Your task to perform on an android device: Open the phone app and click the voicemail tab. Image 0: 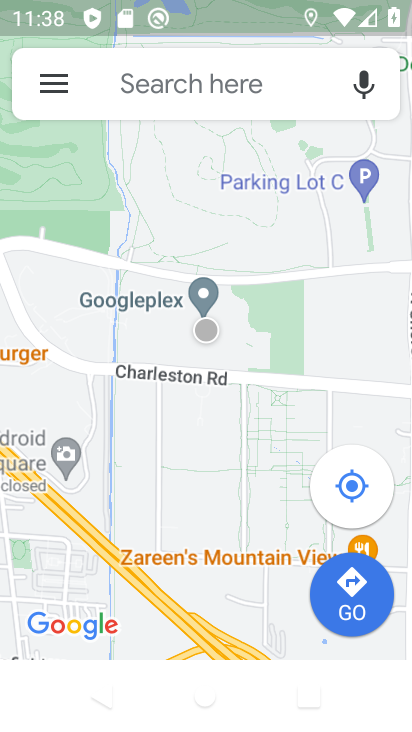
Step 0: press back button
Your task to perform on an android device: Open the phone app and click the voicemail tab. Image 1: 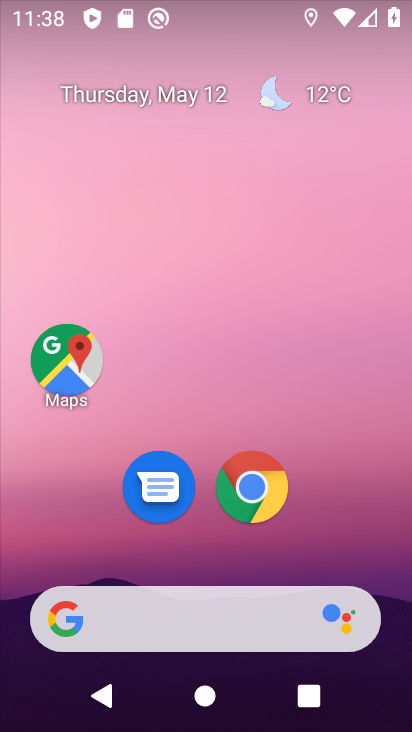
Step 1: drag from (193, 547) to (273, 2)
Your task to perform on an android device: Open the phone app and click the voicemail tab. Image 2: 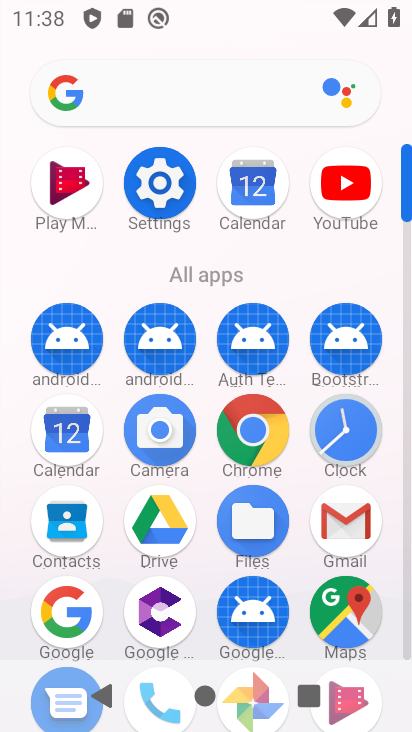
Step 2: drag from (186, 566) to (267, 71)
Your task to perform on an android device: Open the phone app and click the voicemail tab. Image 3: 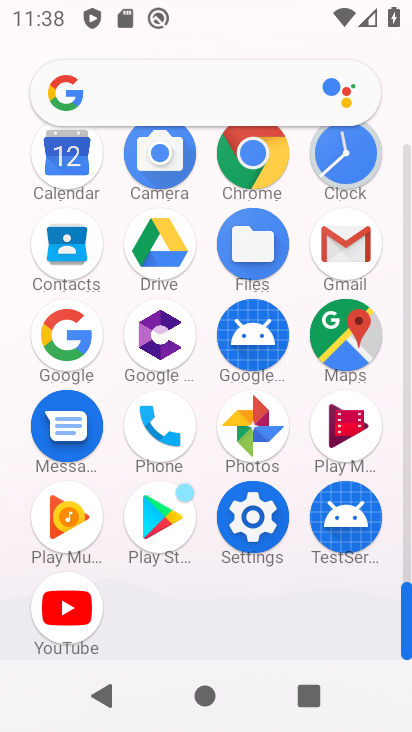
Step 3: click (158, 436)
Your task to perform on an android device: Open the phone app and click the voicemail tab. Image 4: 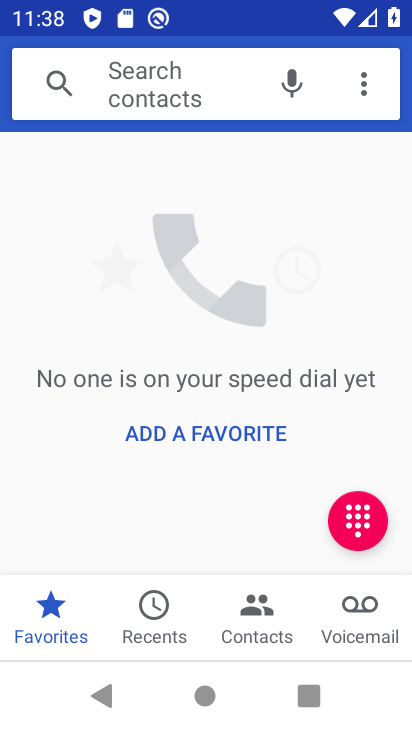
Step 4: click (351, 624)
Your task to perform on an android device: Open the phone app and click the voicemail tab. Image 5: 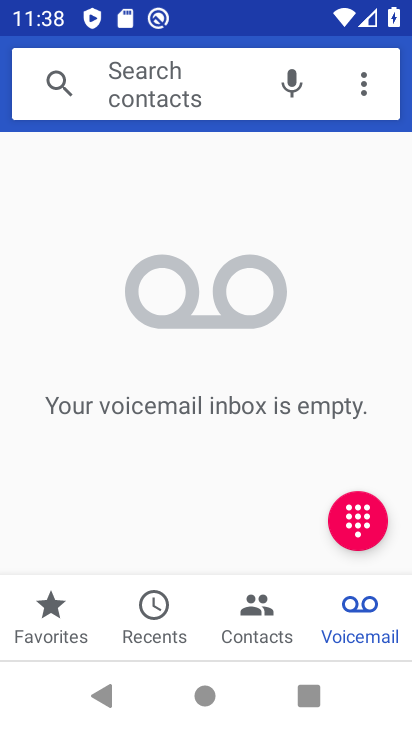
Step 5: task complete